Your task to perform on an android device: Open calendar and show me the first week of next month Image 0: 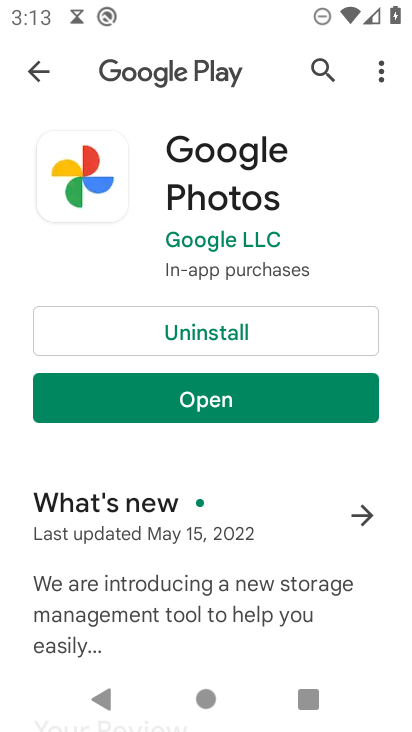
Step 0: press home button
Your task to perform on an android device: Open calendar and show me the first week of next month Image 1: 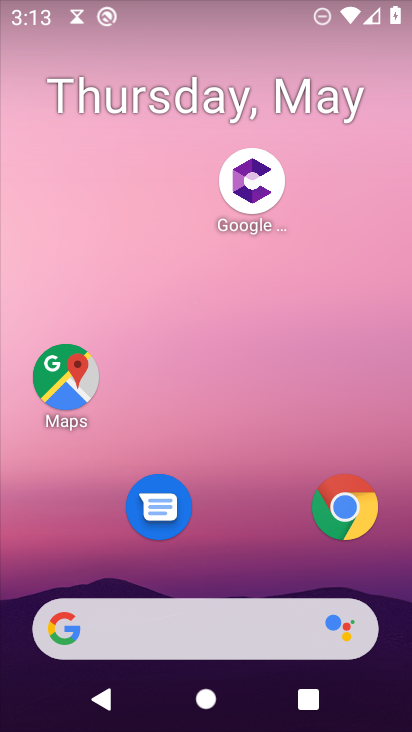
Step 1: drag from (199, 200) to (183, 64)
Your task to perform on an android device: Open calendar and show me the first week of next month Image 2: 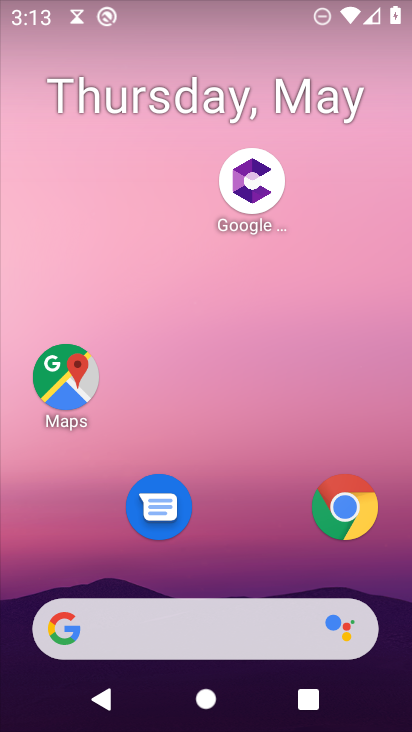
Step 2: drag from (243, 459) to (144, 80)
Your task to perform on an android device: Open calendar and show me the first week of next month Image 3: 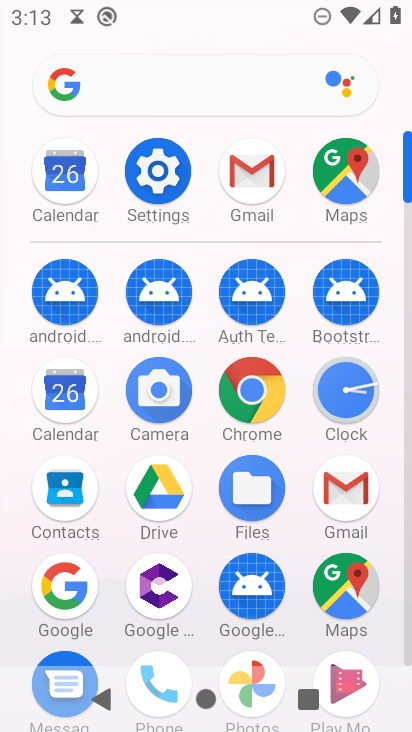
Step 3: click (84, 175)
Your task to perform on an android device: Open calendar and show me the first week of next month Image 4: 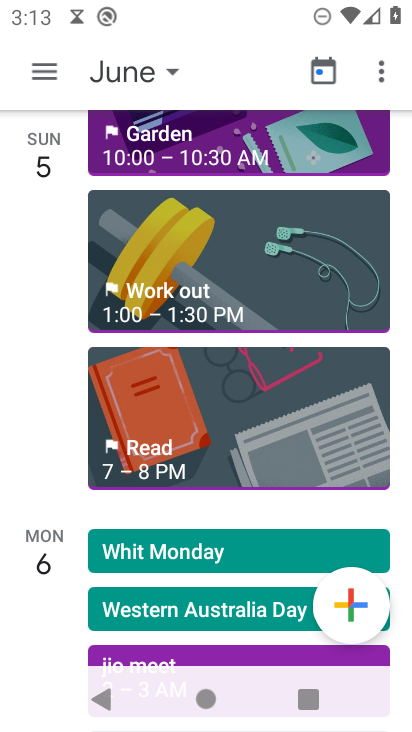
Step 4: task complete